Your task to perform on an android device: turn off data saver in the chrome app Image 0: 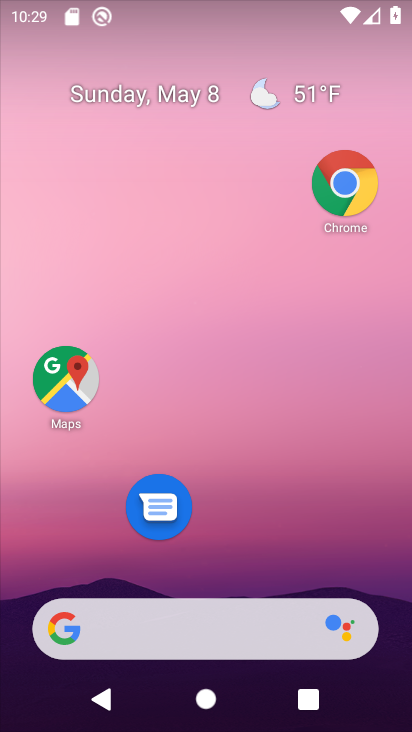
Step 0: drag from (218, 579) to (268, 8)
Your task to perform on an android device: turn off data saver in the chrome app Image 1: 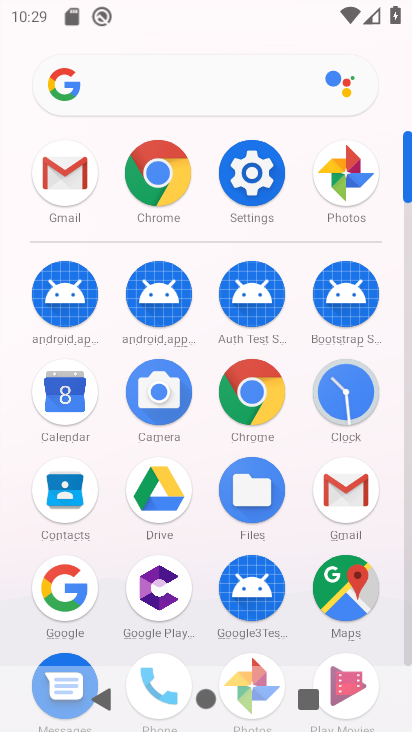
Step 1: click (256, 389)
Your task to perform on an android device: turn off data saver in the chrome app Image 2: 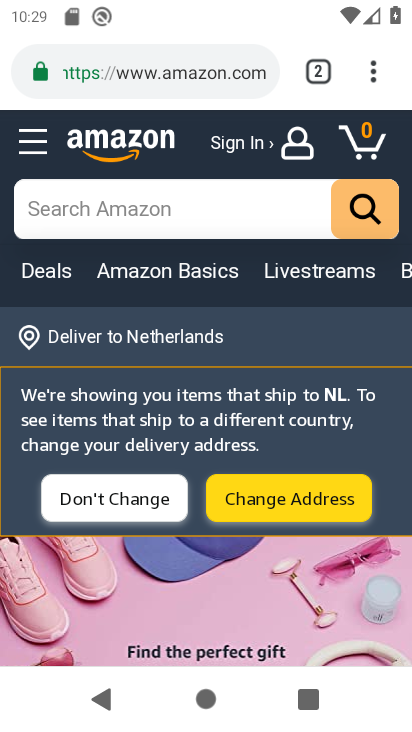
Step 2: click (380, 66)
Your task to perform on an android device: turn off data saver in the chrome app Image 3: 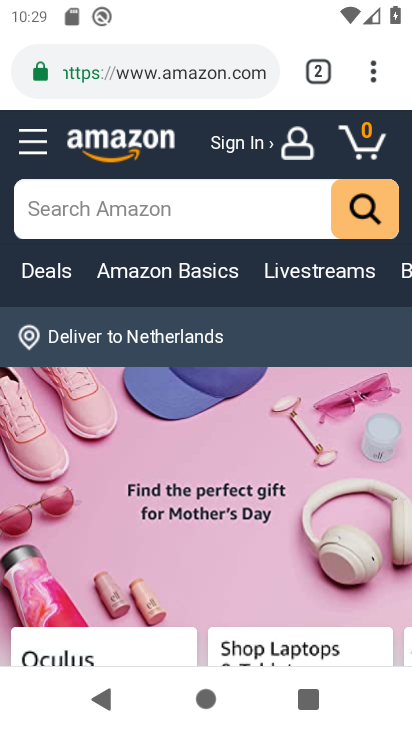
Step 3: click (371, 70)
Your task to perform on an android device: turn off data saver in the chrome app Image 4: 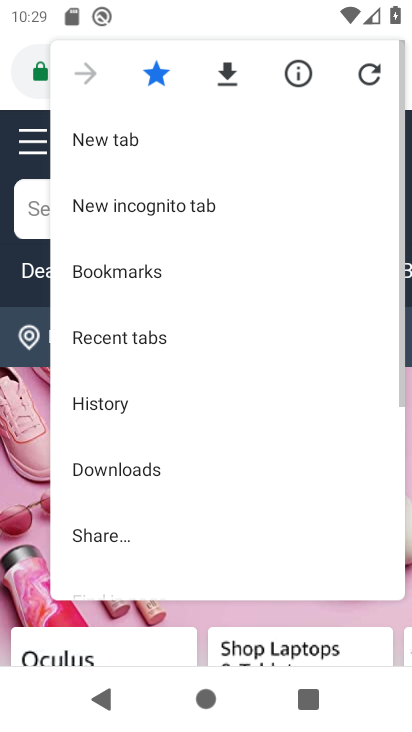
Step 4: drag from (175, 527) to (197, 88)
Your task to perform on an android device: turn off data saver in the chrome app Image 5: 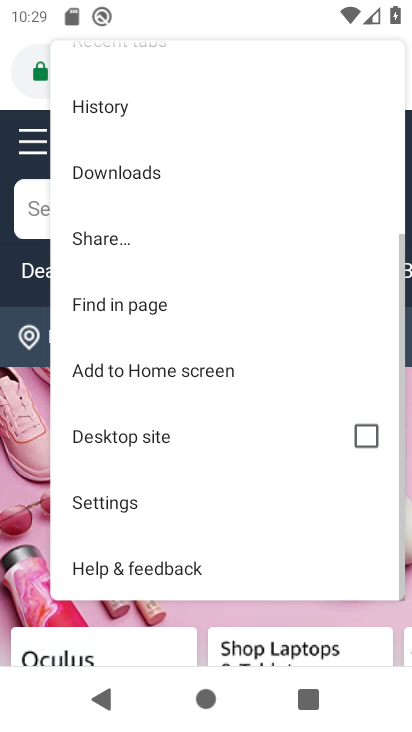
Step 5: click (150, 490)
Your task to perform on an android device: turn off data saver in the chrome app Image 6: 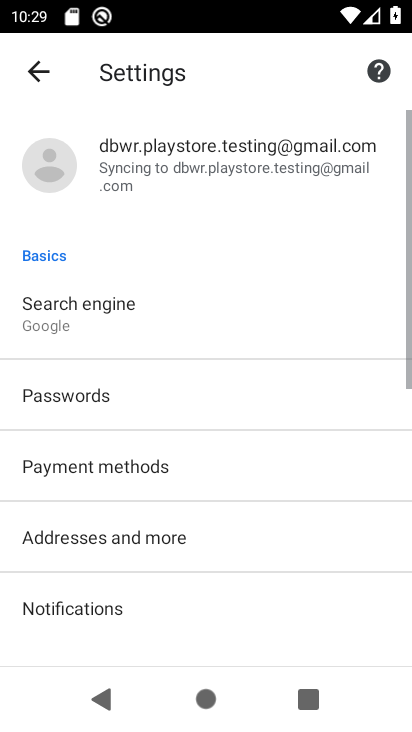
Step 6: drag from (201, 595) to (244, 96)
Your task to perform on an android device: turn off data saver in the chrome app Image 7: 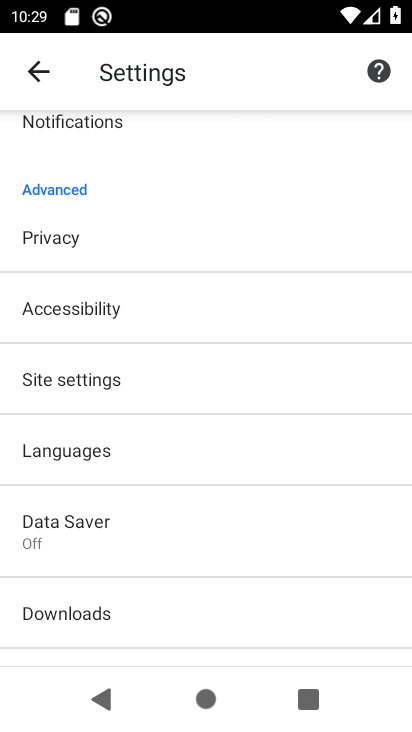
Step 7: click (135, 543)
Your task to perform on an android device: turn off data saver in the chrome app Image 8: 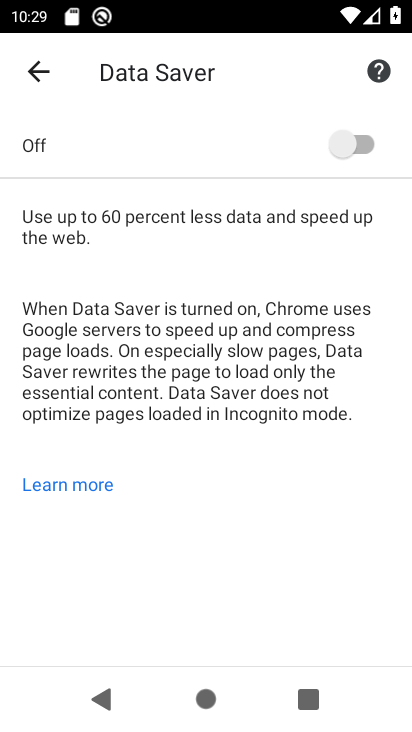
Step 8: task complete